Your task to perform on an android device: turn off data saver in the chrome app Image 0: 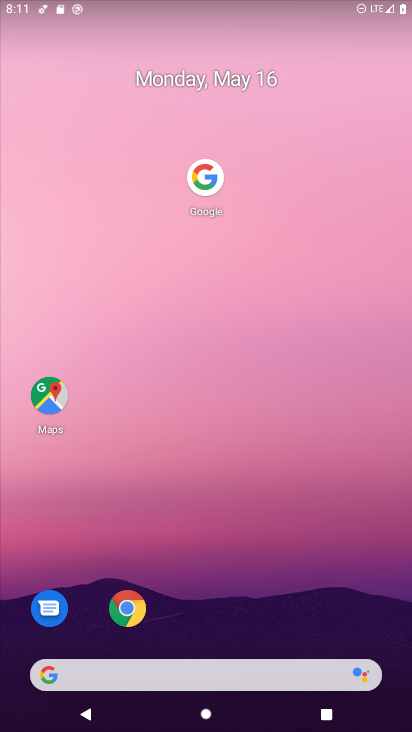
Step 0: click (128, 610)
Your task to perform on an android device: turn off data saver in the chrome app Image 1: 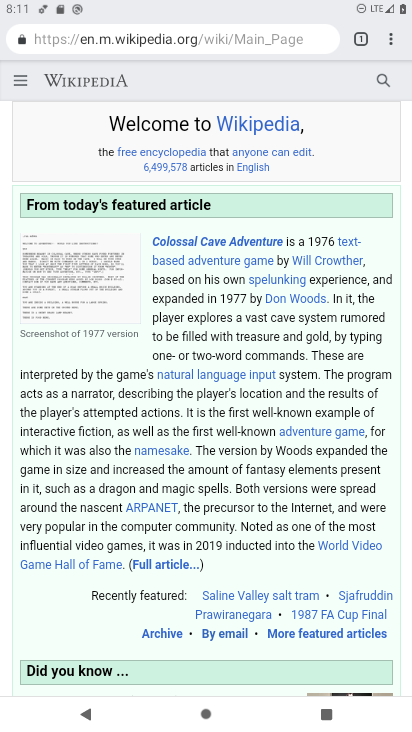
Step 1: click (392, 38)
Your task to perform on an android device: turn off data saver in the chrome app Image 2: 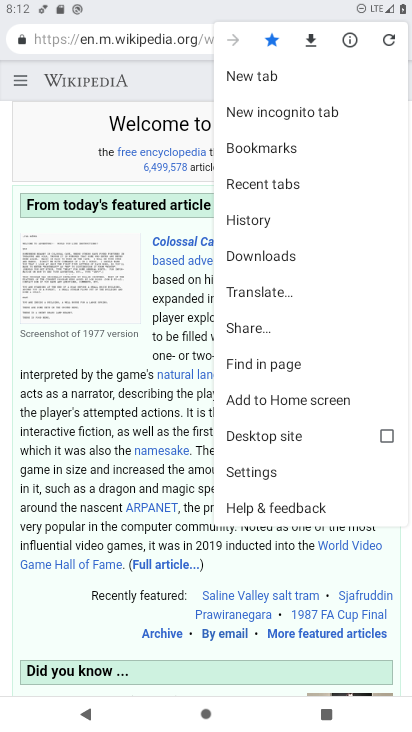
Step 2: click (260, 475)
Your task to perform on an android device: turn off data saver in the chrome app Image 3: 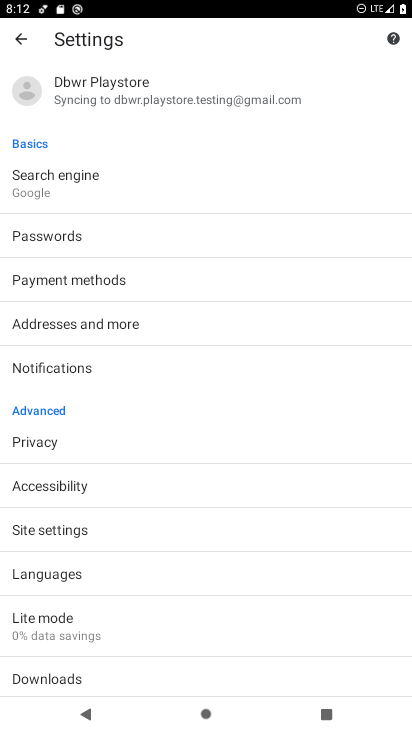
Step 3: click (53, 620)
Your task to perform on an android device: turn off data saver in the chrome app Image 4: 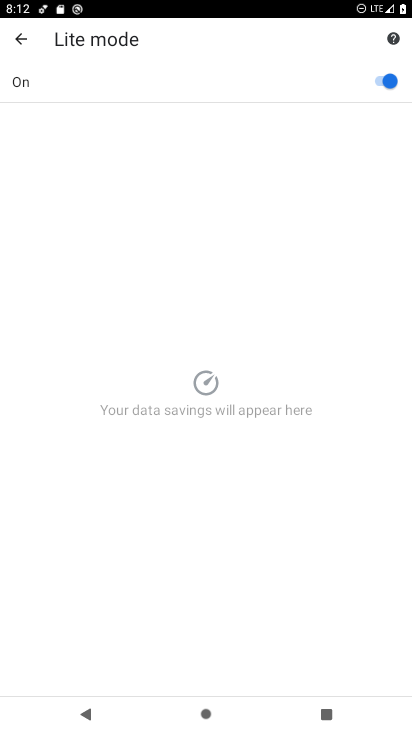
Step 4: click (389, 84)
Your task to perform on an android device: turn off data saver in the chrome app Image 5: 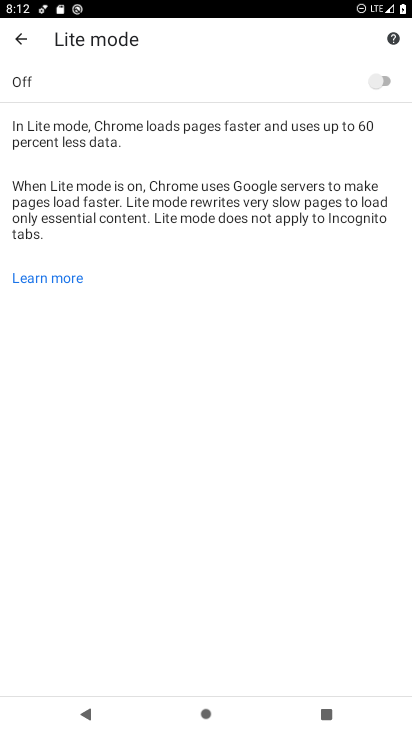
Step 5: task complete